Your task to perform on an android device: Search for pizza restaurants on Maps Image 0: 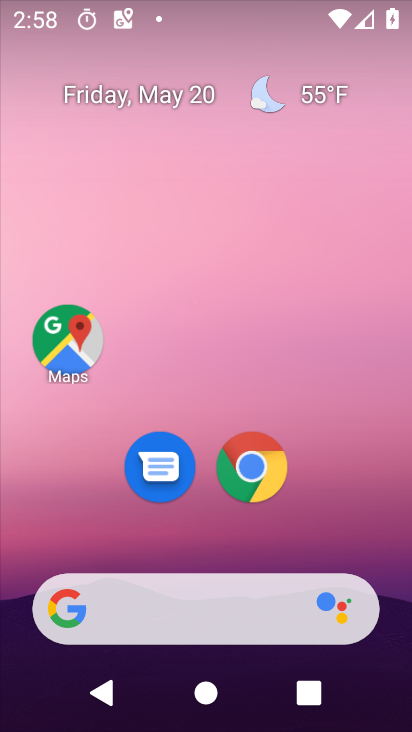
Step 0: click (69, 341)
Your task to perform on an android device: Search for pizza restaurants on Maps Image 1: 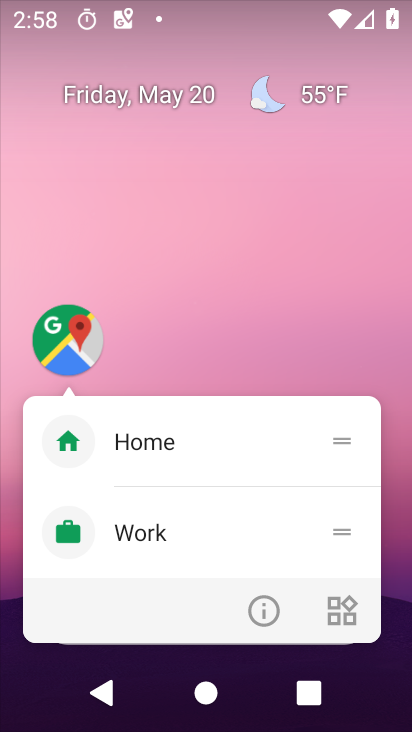
Step 1: click (69, 340)
Your task to perform on an android device: Search for pizza restaurants on Maps Image 2: 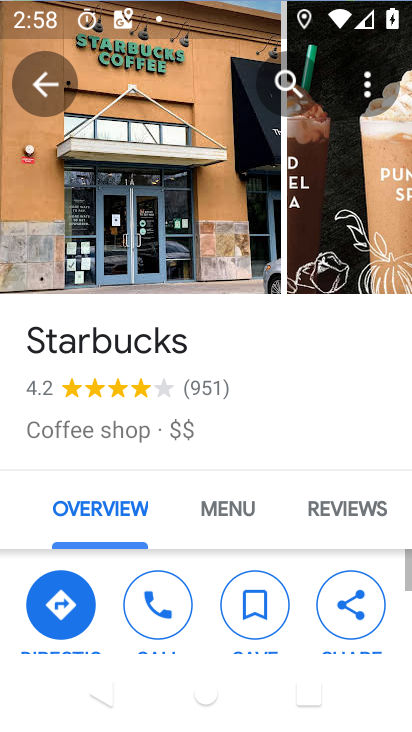
Step 2: click (42, 75)
Your task to perform on an android device: Search for pizza restaurants on Maps Image 3: 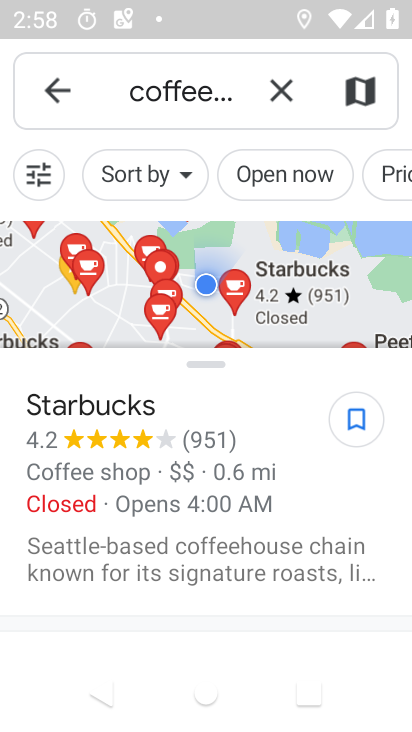
Step 3: click (287, 96)
Your task to perform on an android device: Search for pizza restaurants on Maps Image 4: 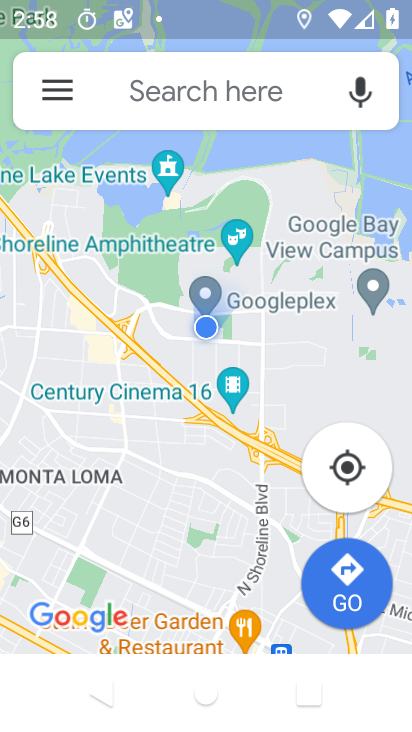
Step 4: click (184, 102)
Your task to perform on an android device: Search for pizza restaurants on Maps Image 5: 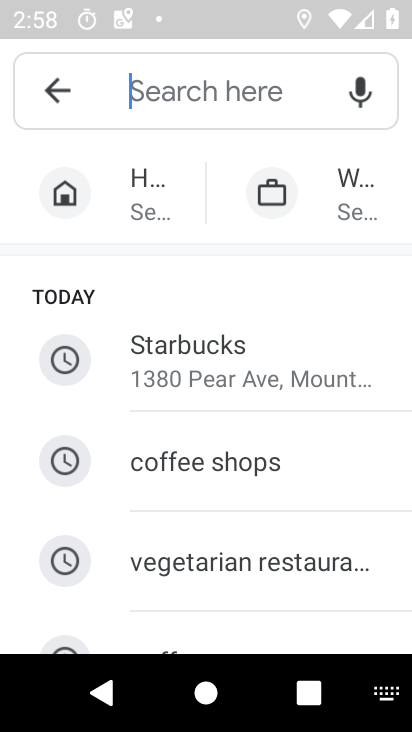
Step 5: type "pizza restaurants"
Your task to perform on an android device: Search for pizza restaurants on Maps Image 6: 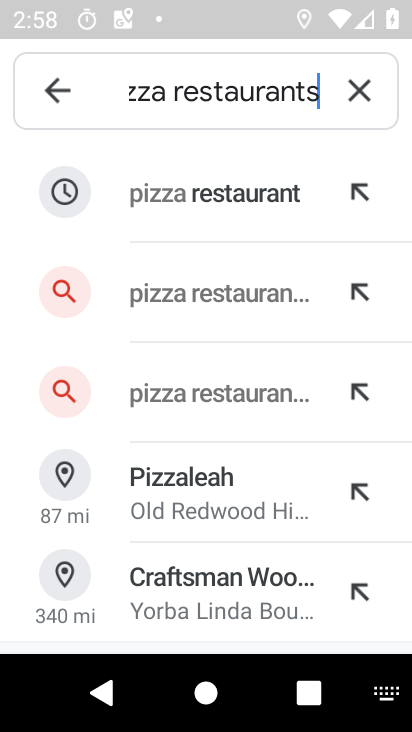
Step 6: click (231, 187)
Your task to perform on an android device: Search for pizza restaurants on Maps Image 7: 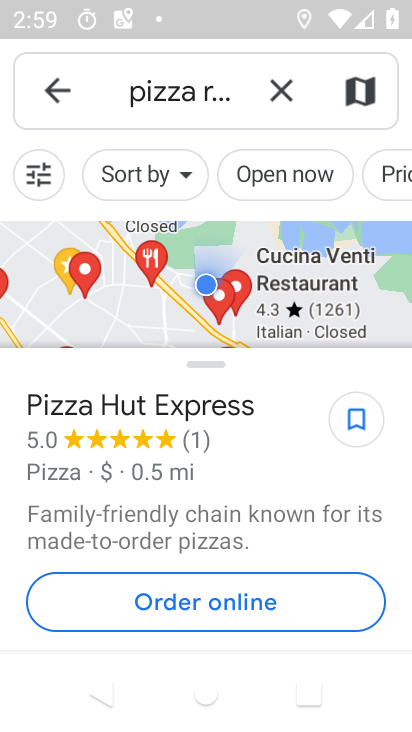
Step 7: task complete